Your task to perform on an android device: Show me recent news Image 0: 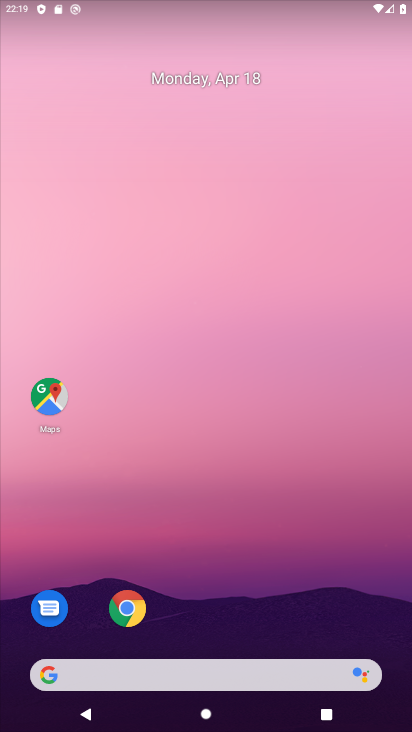
Step 0: drag from (231, 616) to (270, 233)
Your task to perform on an android device: Show me recent news Image 1: 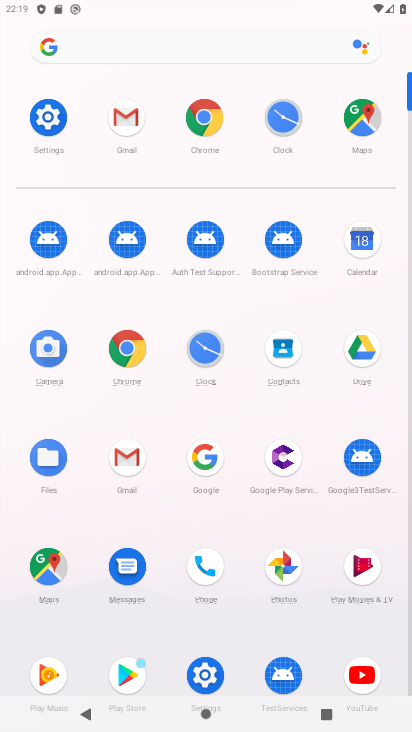
Step 1: click (199, 455)
Your task to perform on an android device: Show me recent news Image 2: 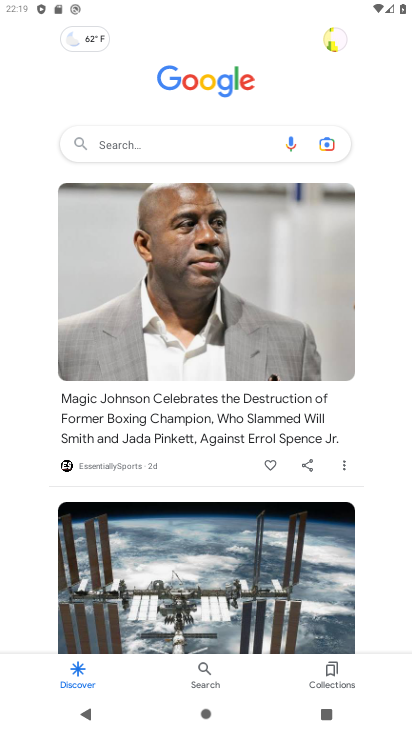
Step 2: click (140, 145)
Your task to perform on an android device: Show me recent news Image 3: 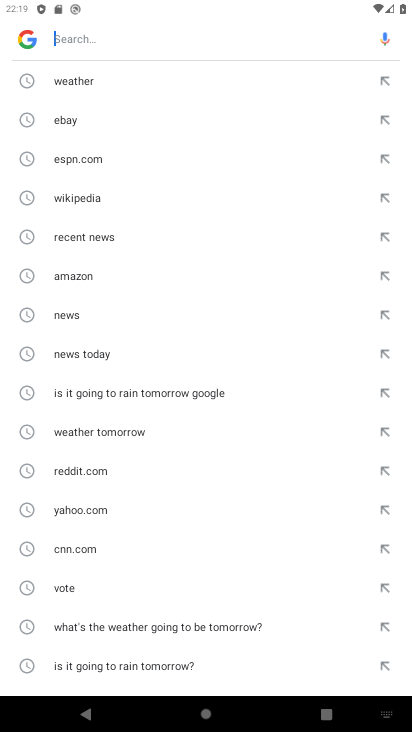
Step 3: click (71, 315)
Your task to perform on an android device: Show me recent news Image 4: 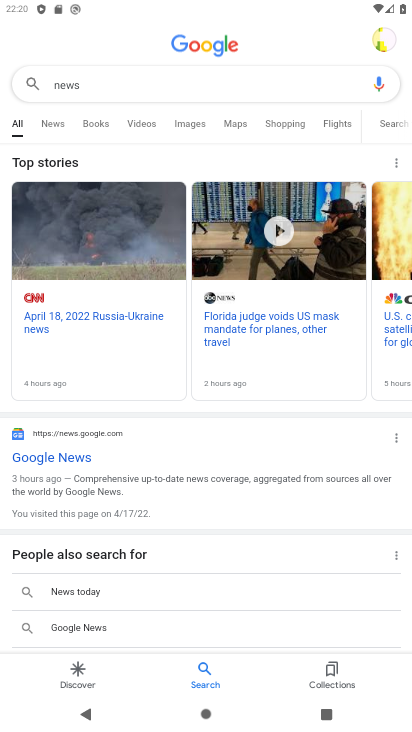
Step 4: task complete